Your task to perform on an android device: Go to notification settings Image 0: 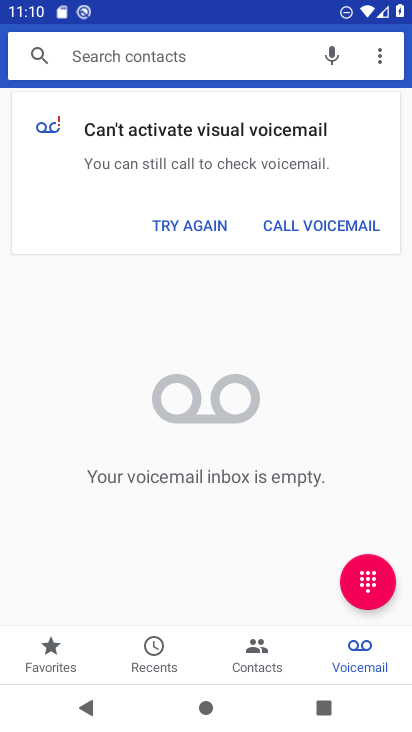
Step 0: press home button
Your task to perform on an android device: Go to notification settings Image 1: 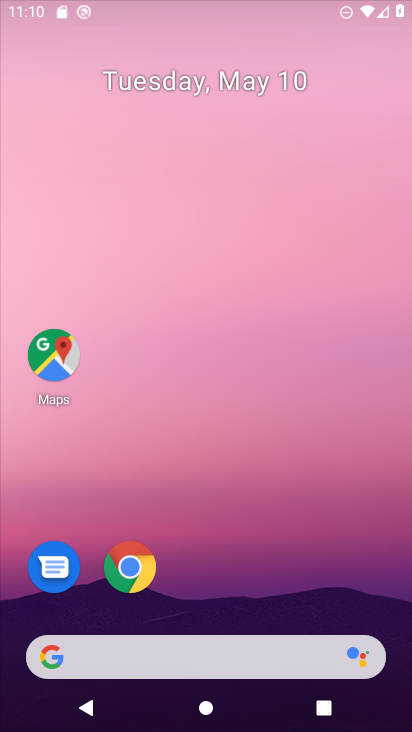
Step 1: drag from (331, 564) to (337, 135)
Your task to perform on an android device: Go to notification settings Image 2: 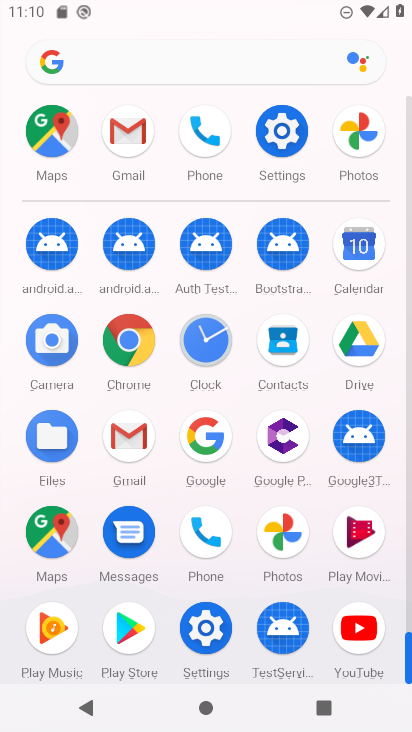
Step 2: click (283, 152)
Your task to perform on an android device: Go to notification settings Image 3: 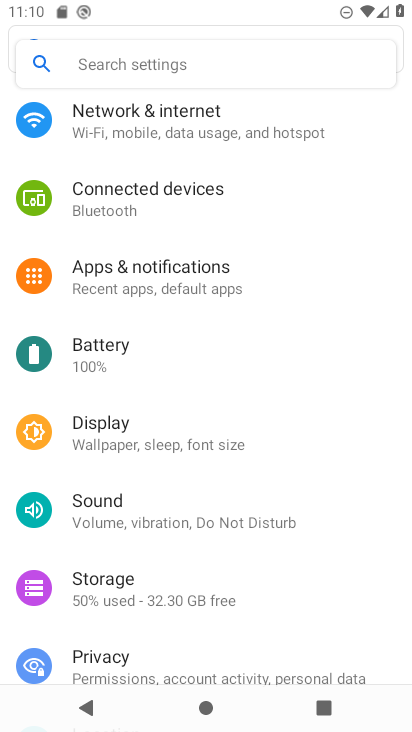
Step 3: click (237, 271)
Your task to perform on an android device: Go to notification settings Image 4: 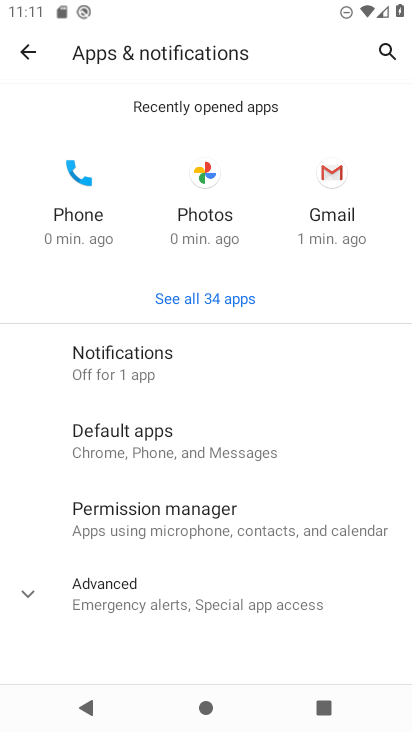
Step 4: click (220, 371)
Your task to perform on an android device: Go to notification settings Image 5: 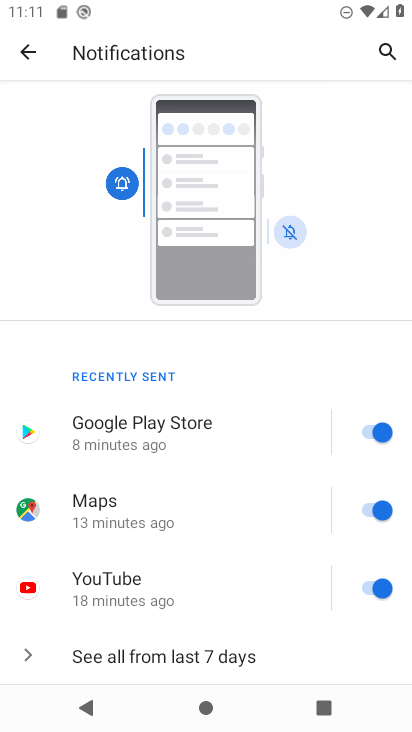
Step 5: drag from (157, 591) to (187, 270)
Your task to perform on an android device: Go to notification settings Image 6: 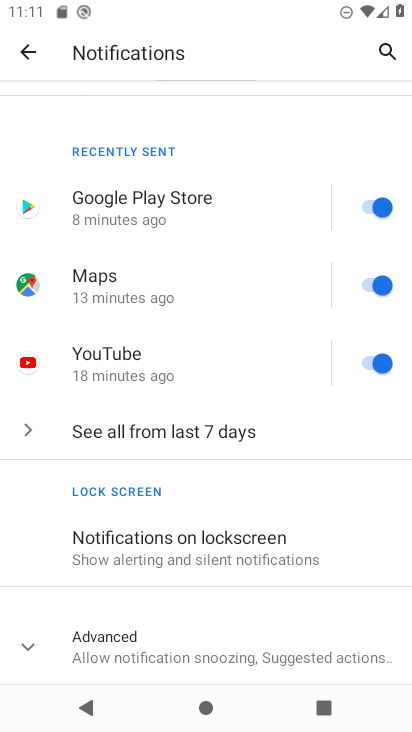
Step 6: click (168, 645)
Your task to perform on an android device: Go to notification settings Image 7: 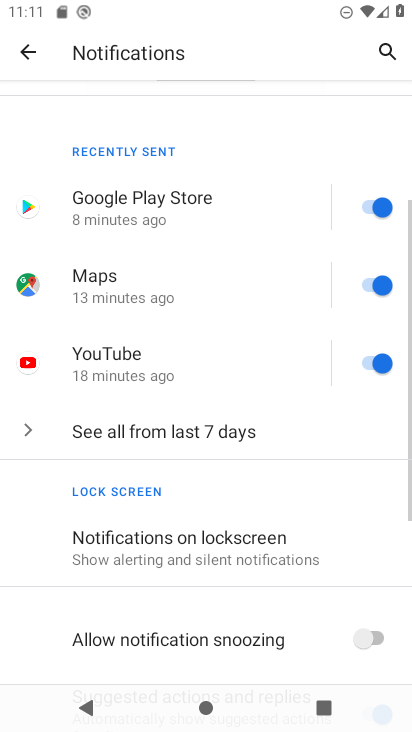
Step 7: task complete